Your task to perform on an android device: set the timer Image 0: 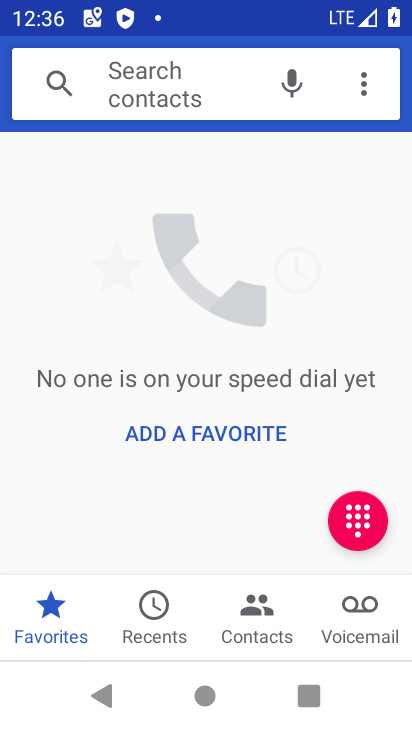
Step 0: press home button
Your task to perform on an android device: set the timer Image 1: 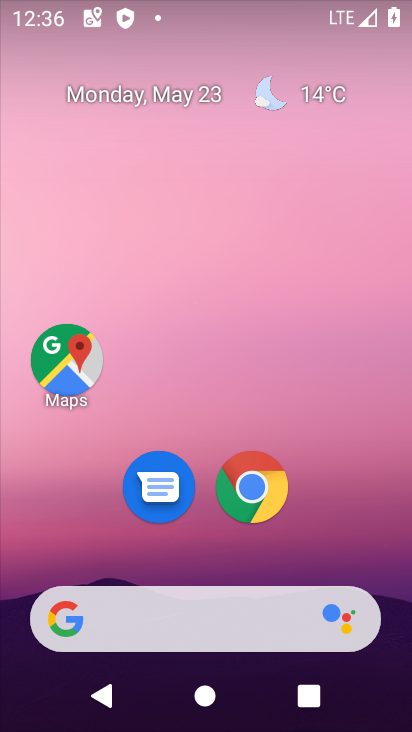
Step 1: drag from (386, 596) to (292, 120)
Your task to perform on an android device: set the timer Image 2: 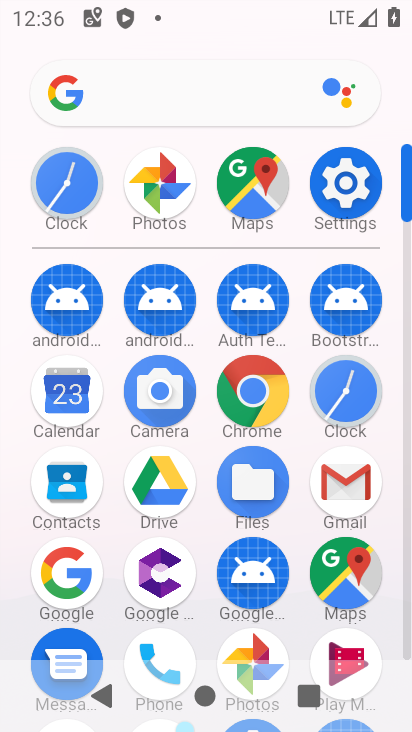
Step 2: click (411, 636)
Your task to perform on an android device: set the timer Image 3: 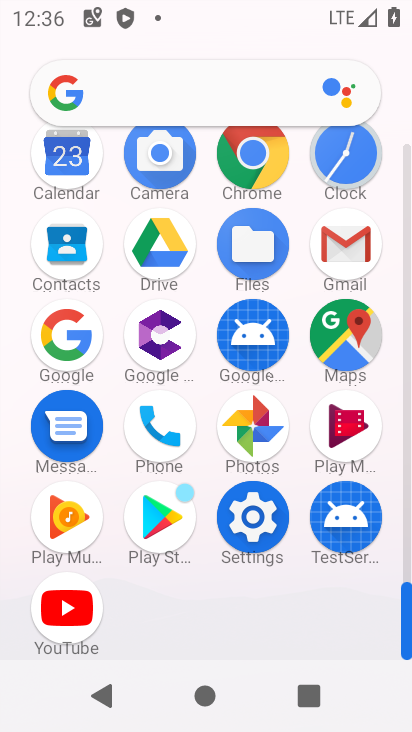
Step 3: click (346, 150)
Your task to perform on an android device: set the timer Image 4: 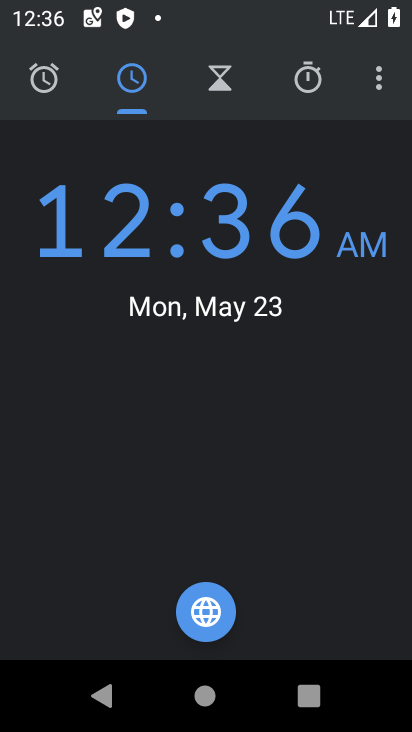
Step 4: click (222, 85)
Your task to perform on an android device: set the timer Image 5: 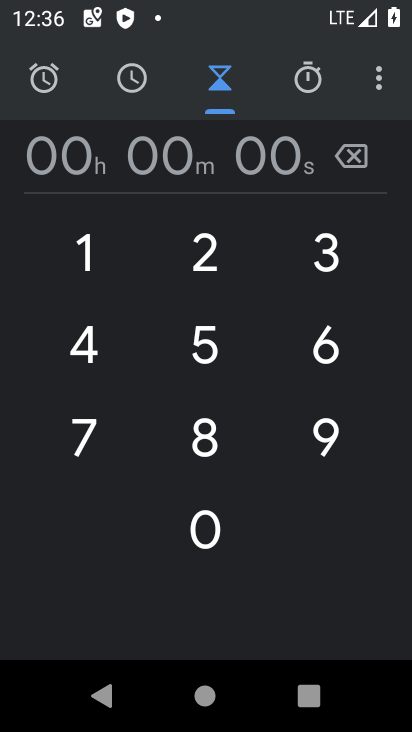
Step 5: click (76, 268)
Your task to perform on an android device: set the timer Image 6: 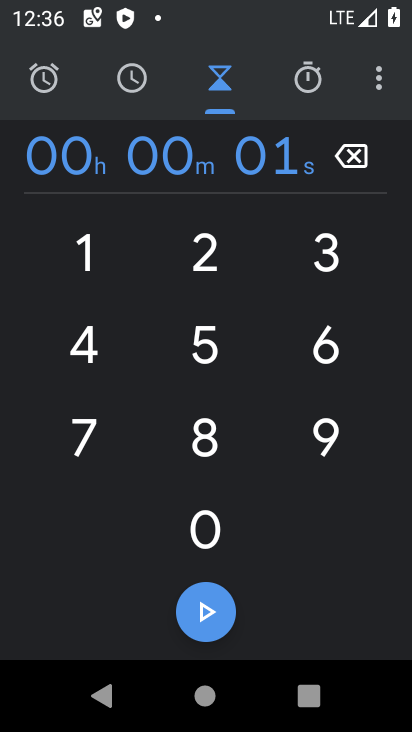
Step 6: click (334, 253)
Your task to perform on an android device: set the timer Image 7: 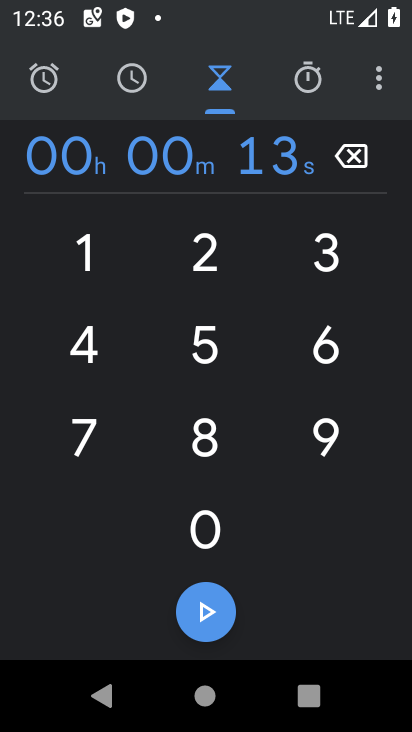
Step 7: click (195, 527)
Your task to perform on an android device: set the timer Image 8: 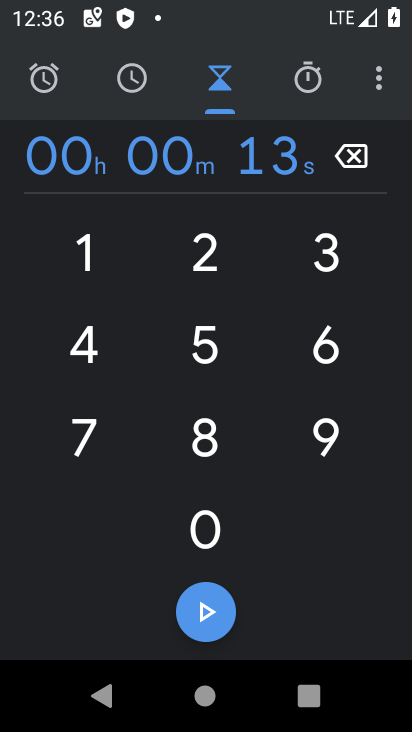
Step 8: click (195, 527)
Your task to perform on an android device: set the timer Image 9: 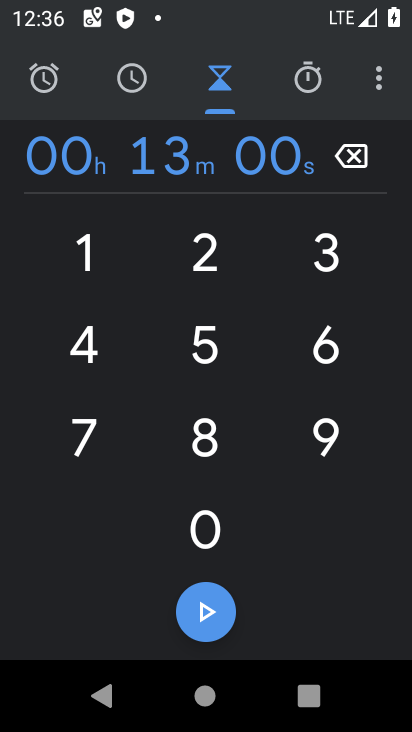
Step 9: click (203, 531)
Your task to perform on an android device: set the timer Image 10: 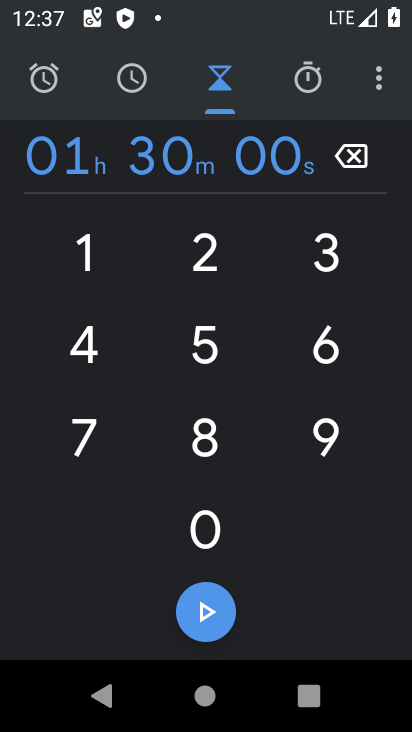
Step 10: task complete